Your task to perform on an android device: add a contact Image 0: 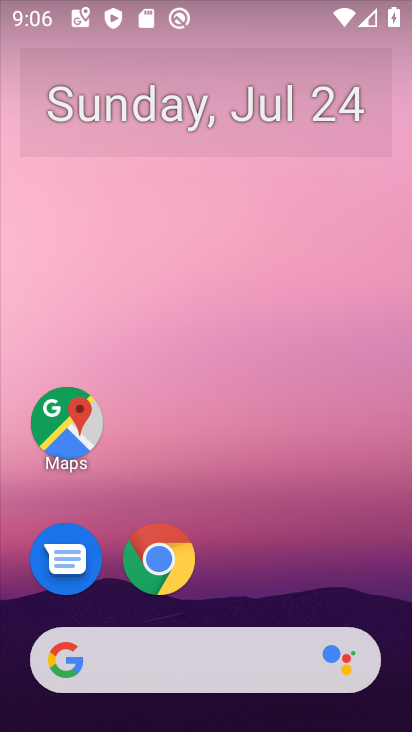
Step 0: drag from (336, 580) to (335, 151)
Your task to perform on an android device: add a contact Image 1: 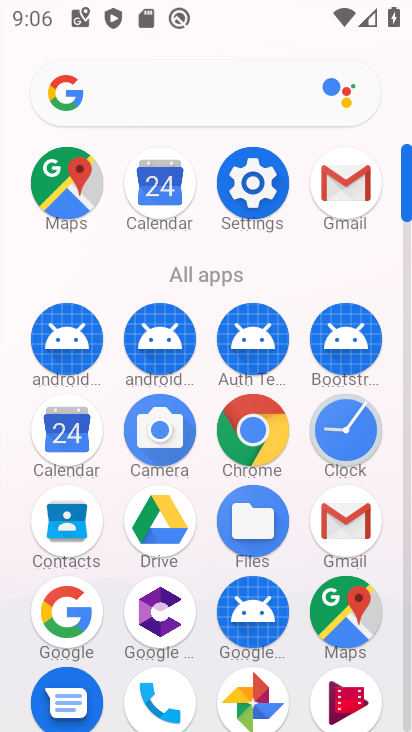
Step 1: click (59, 523)
Your task to perform on an android device: add a contact Image 2: 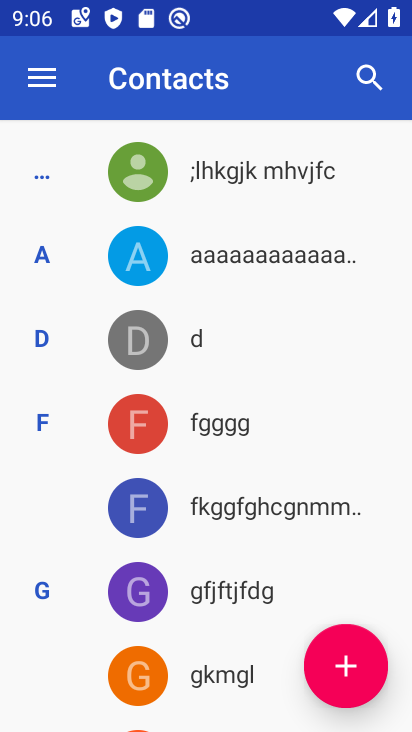
Step 2: click (331, 650)
Your task to perform on an android device: add a contact Image 3: 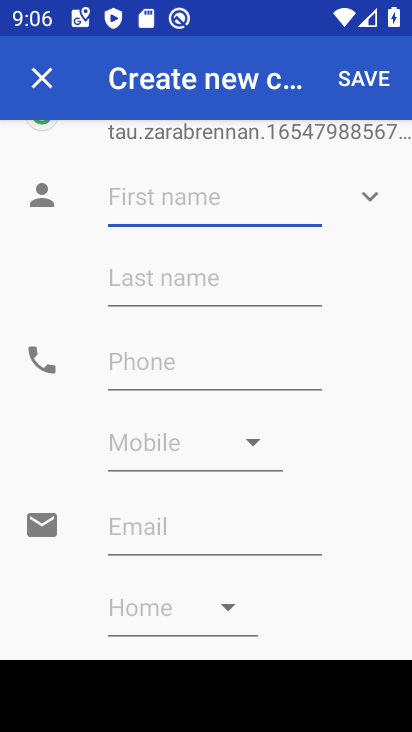
Step 3: click (146, 189)
Your task to perform on an android device: add a contact Image 4: 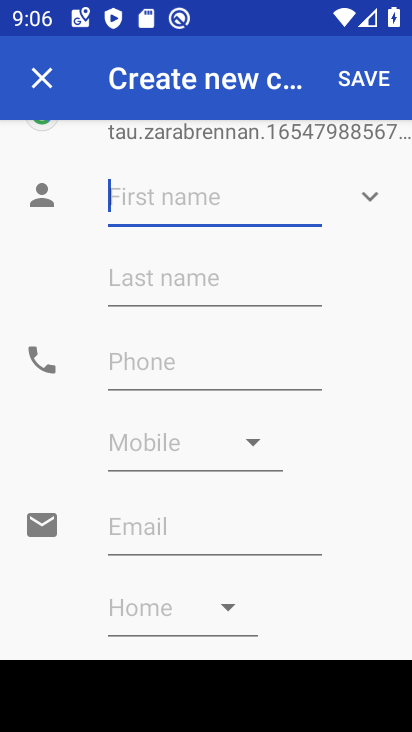
Step 4: type "hghh"
Your task to perform on an android device: add a contact Image 5: 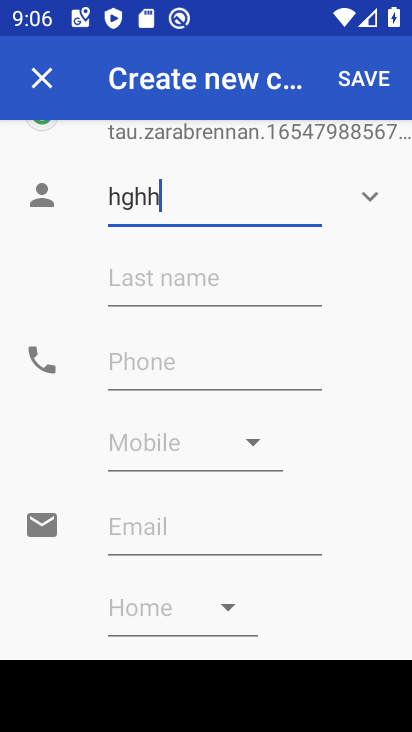
Step 5: click (142, 347)
Your task to perform on an android device: add a contact Image 6: 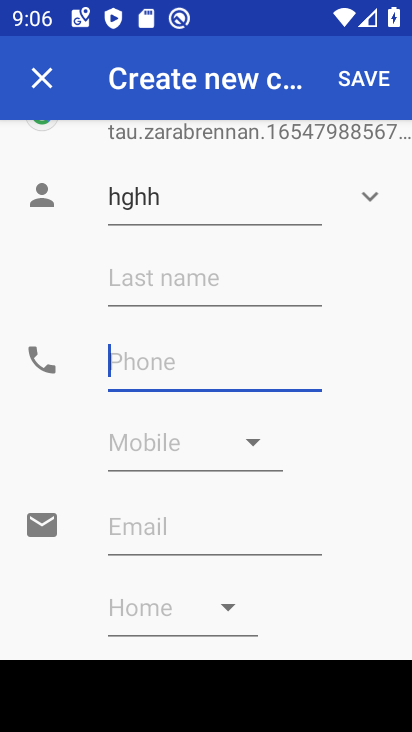
Step 6: type "68686"
Your task to perform on an android device: add a contact Image 7: 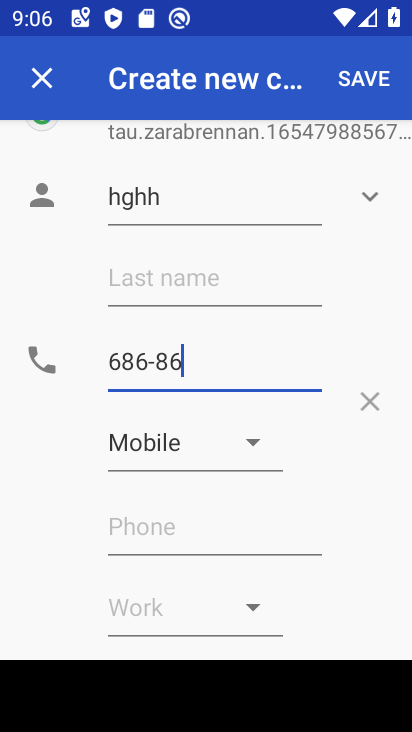
Step 7: click (382, 88)
Your task to perform on an android device: add a contact Image 8: 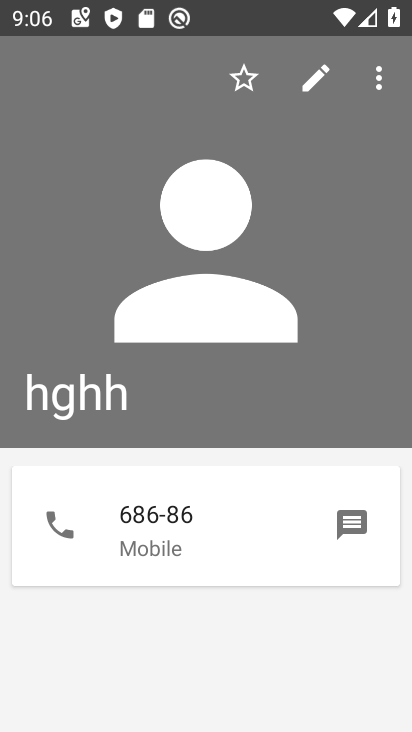
Step 8: task complete